Your task to perform on an android device: search for starred emails in the gmail app Image 0: 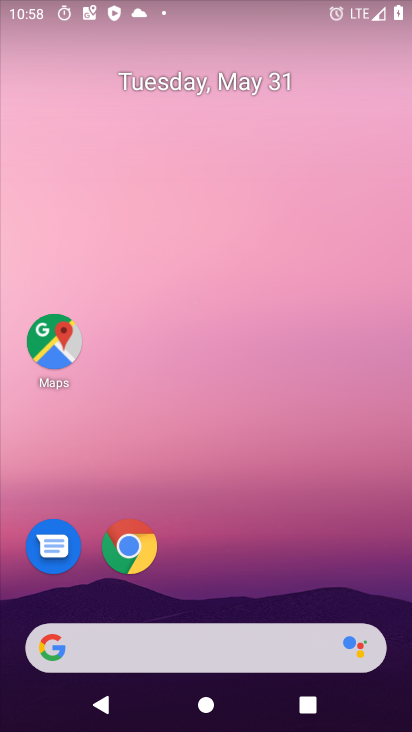
Step 0: drag from (202, 546) to (220, 297)
Your task to perform on an android device: search for starred emails in the gmail app Image 1: 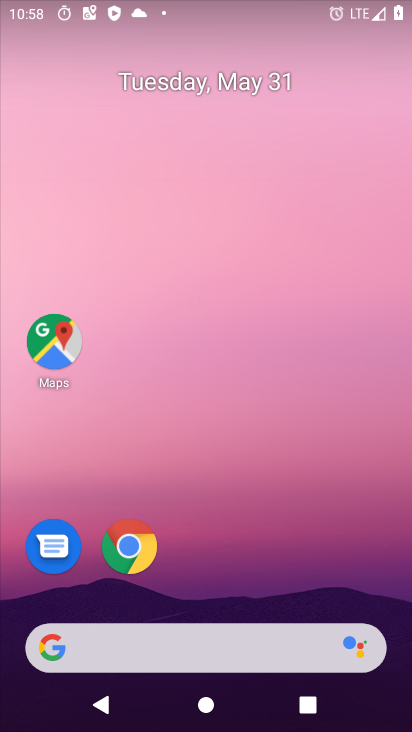
Step 1: drag from (237, 579) to (293, 118)
Your task to perform on an android device: search for starred emails in the gmail app Image 2: 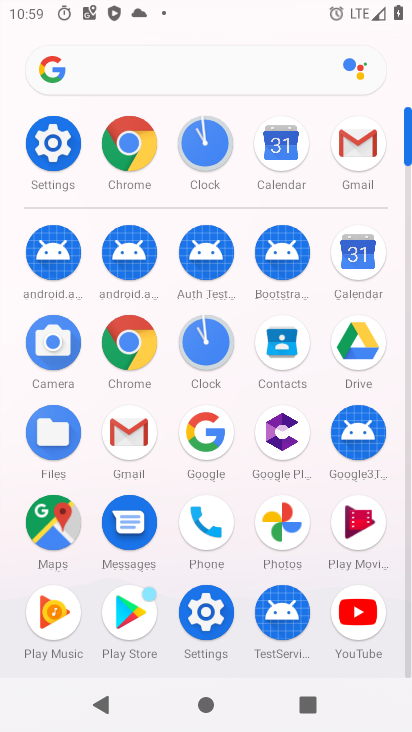
Step 2: click (128, 415)
Your task to perform on an android device: search for starred emails in the gmail app Image 3: 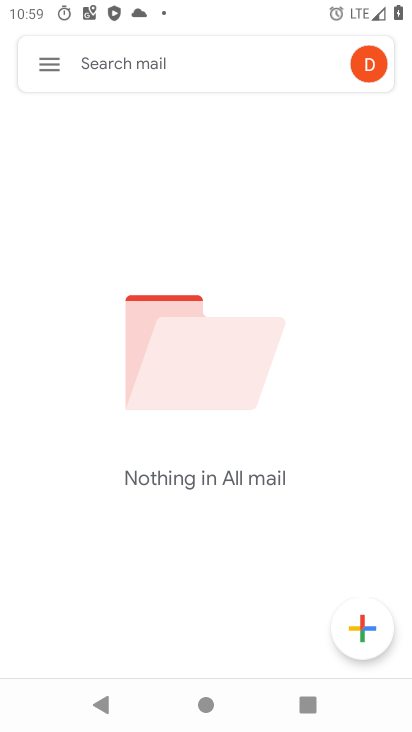
Step 3: click (40, 68)
Your task to perform on an android device: search for starred emails in the gmail app Image 4: 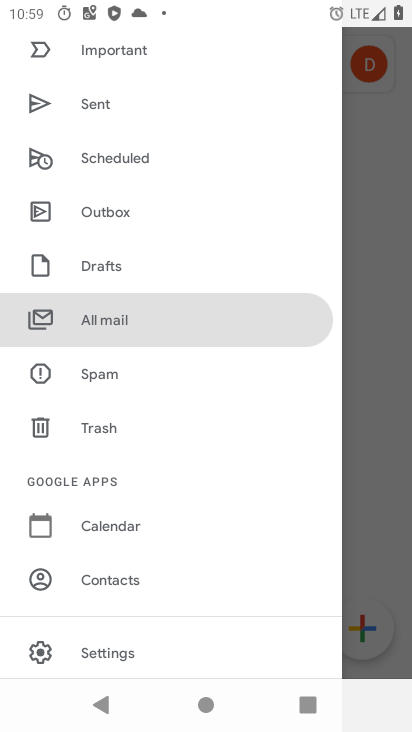
Step 4: drag from (146, 156) to (147, 524)
Your task to perform on an android device: search for starred emails in the gmail app Image 5: 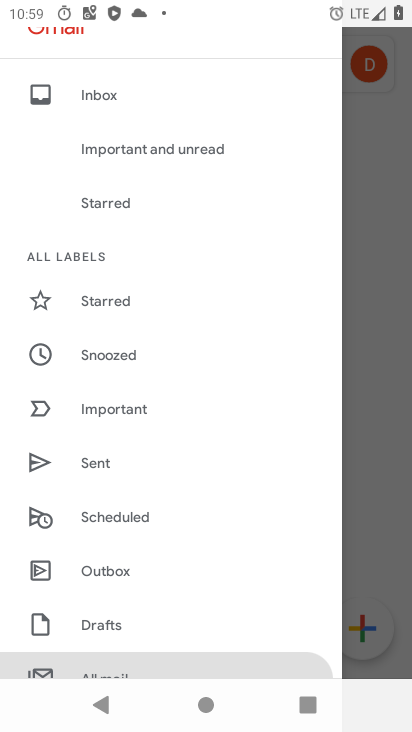
Step 5: click (117, 308)
Your task to perform on an android device: search for starred emails in the gmail app Image 6: 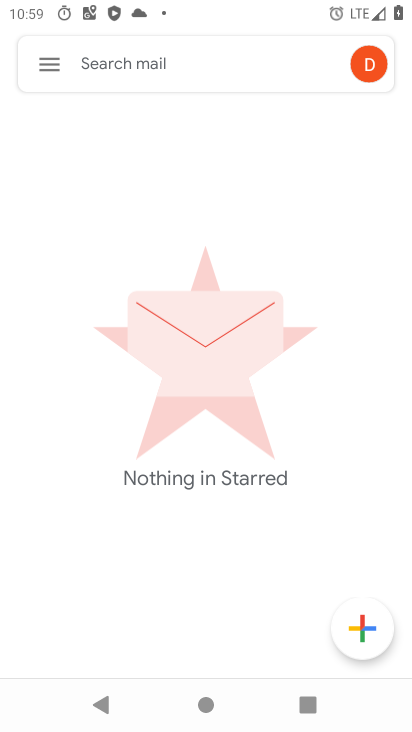
Step 6: task complete